Your task to perform on an android device: turn pop-ups off in chrome Image 0: 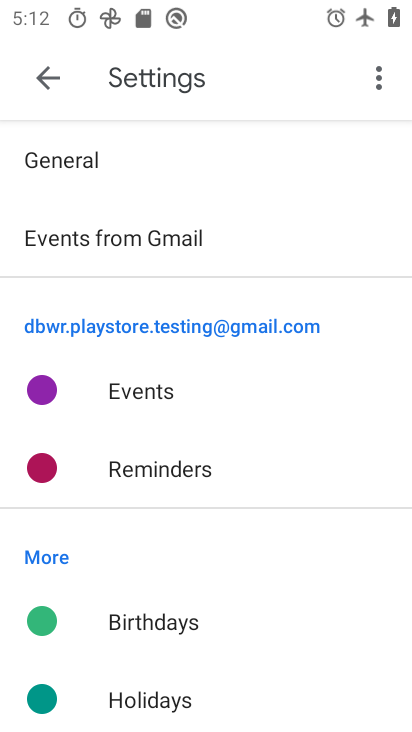
Step 0: press home button
Your task to perform on an android device: turn pop-ups off in chrome Image 1: 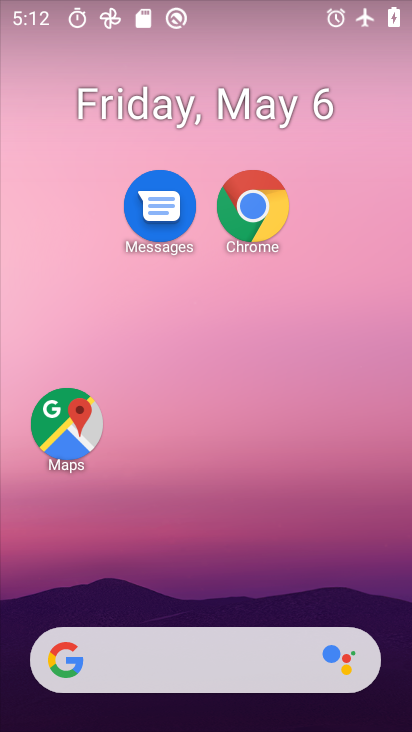
Step 1: click (240, 222)
Your task to perform on an android device: turn pop-ups off in chrome Image 2: 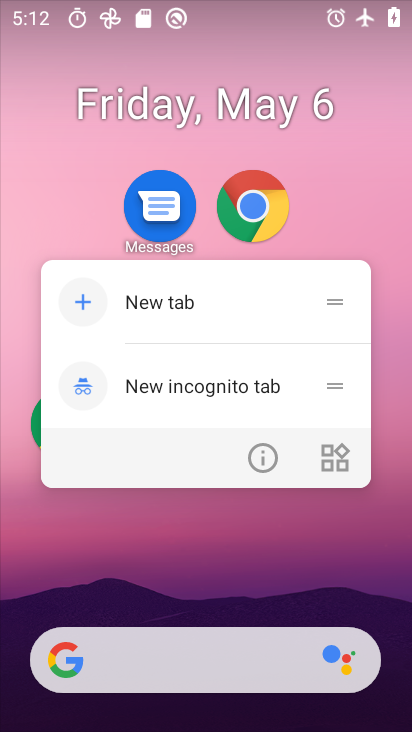
Step 2: click (240, 195)
Your task to perform on an android device: turn pop-ups off in chrome Image 3: 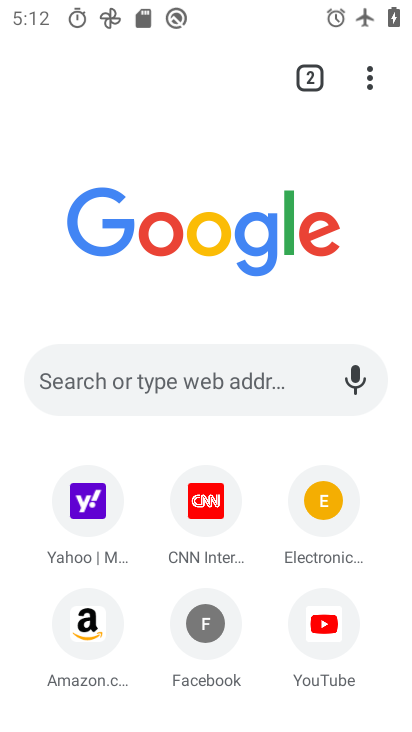
Step 3: click (367, 71)
Your task to perform on an android device: turn pop-ups off in chrome Image 4: 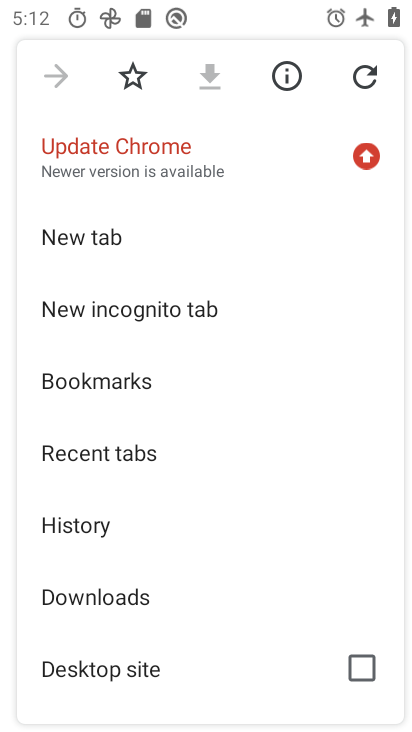
Step 4: drag from (147, 665) to (137, 259)
Your task to perform on an android device: turn pop-ups off in chrome Image 5: 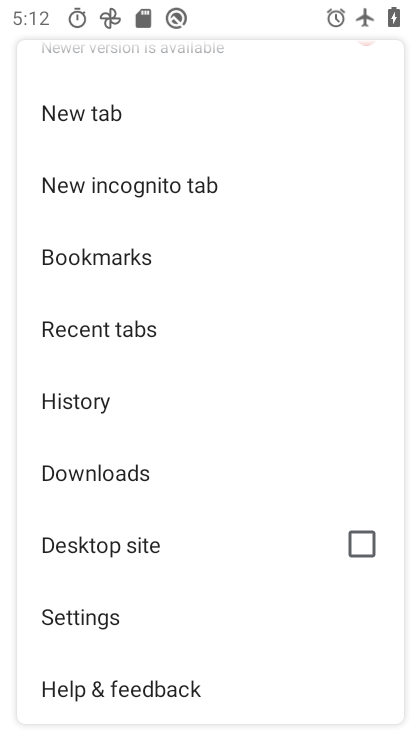
Step 5: click (104, 621)
Your task to perform on an android device: turn pop-ups off in chrome Image 6: 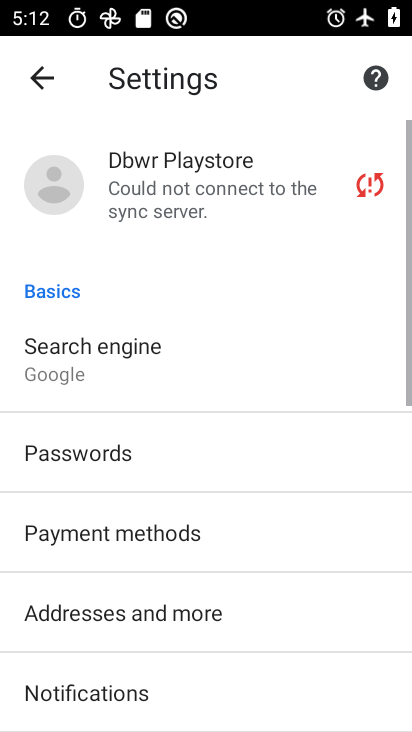
Step 6: drag from (157, 675) to (154, 340)
Your task to perform on an android device: turn pop-ups off in chrome Image 7: 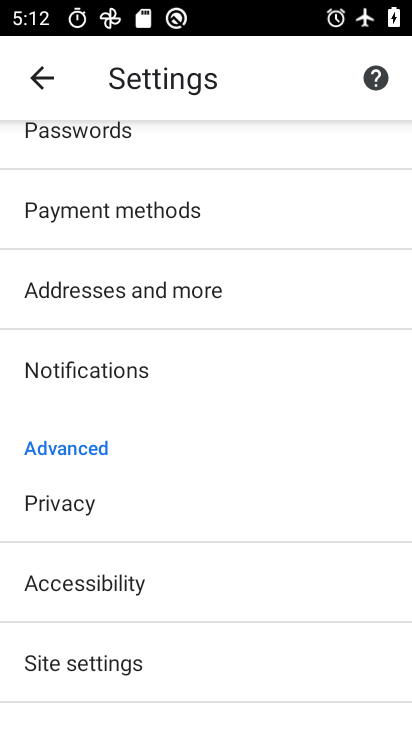
Step 7: drag from (106, 698) to (75, 377)
Your task to perform on an android device: turn pop-ups off in chrome Image 8: 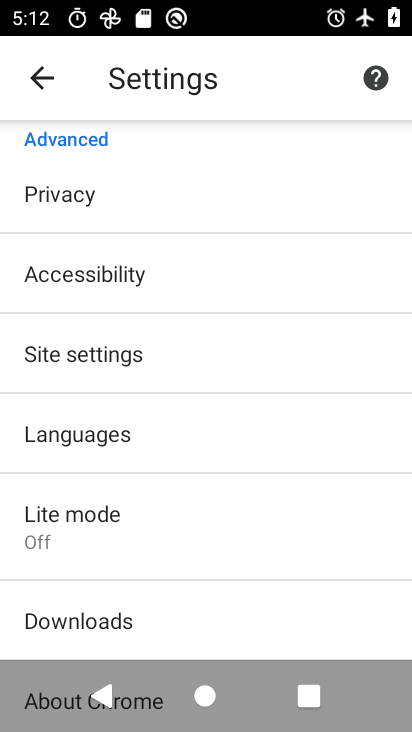
Step 8: drag from (75, 642) to (69, 383)
Your task to perform on an android device: turn pop-ups off in chrome Image 9: 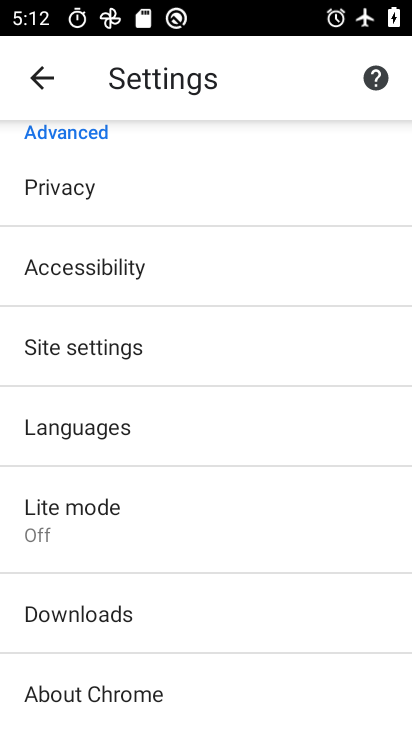
Step 9: click (68, 340)
Your task to perform on an android device: turn pop-ups off in chrome Image 10: 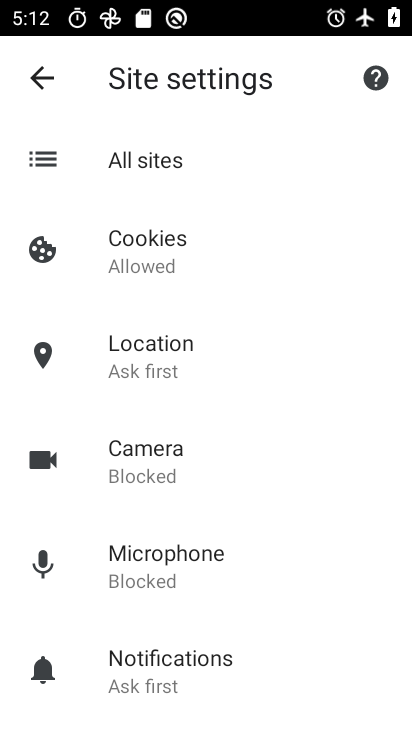
Step 10: drag from (167, 691) to (149, 410)
Your task to perform on an android device: turn pop-ups off in chrome Image 11: 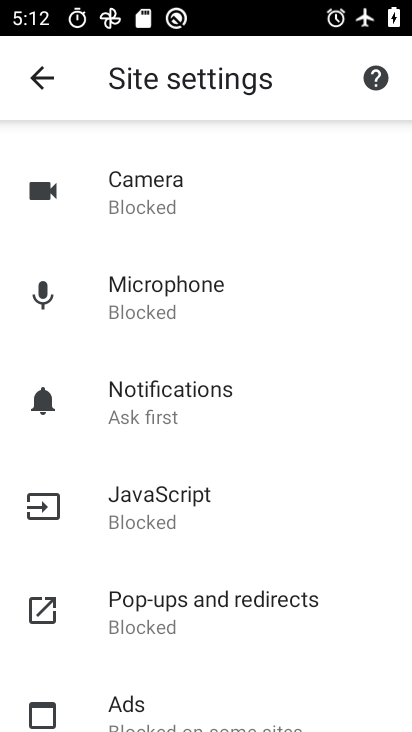
Step 11: click (149, 615)
Your task to perform on an android device: turn pop-ups off in chrome Image 12: 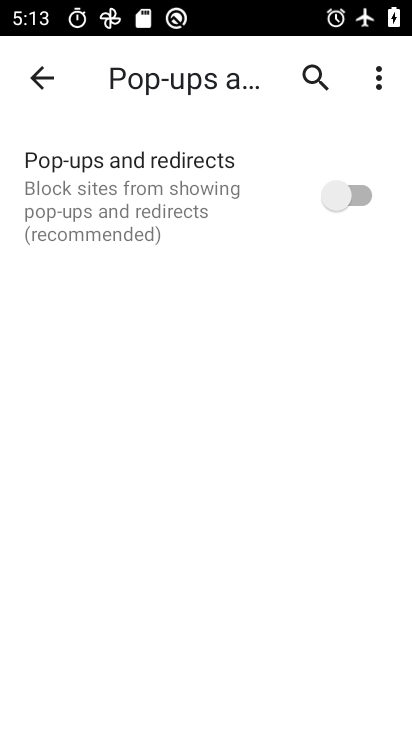
Step 12: task complete